Your task to perform on an android device: Open Google Chrome and click the shortcut for Amazon.com Image 0: 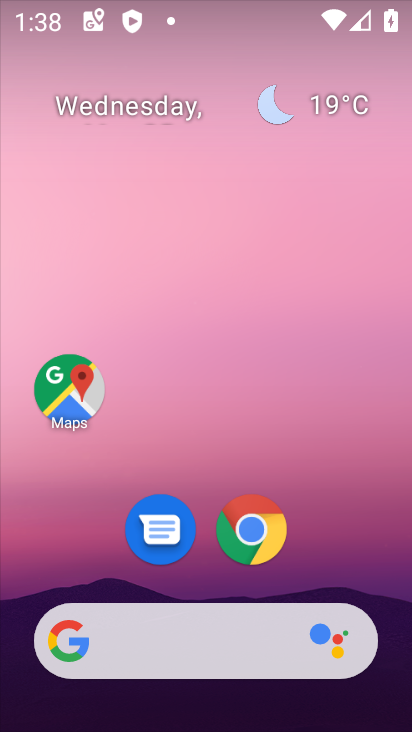
Step 0: click (260, 549)
Your task to perform on an android device: Open Google Chrome and click the shortcut for Amazon.com Image 1: 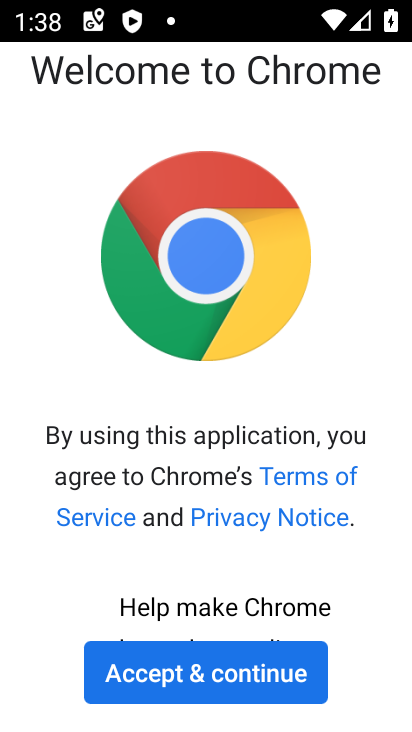
Step 1: click (224, 697)
Your task to perform on an android device: Open Google Chrome and click the shortcut for Amazon.com Image 2: 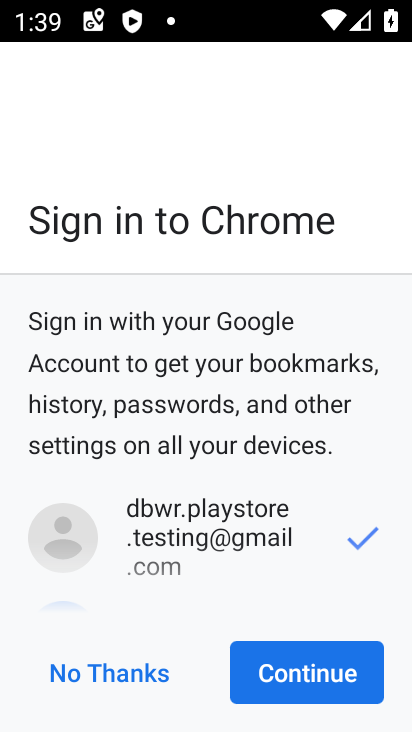
Step 2: click (303, 643)
Your task to perform on an android device: Open Google Chrome and click the shortcut for Amazon.com Image 3: 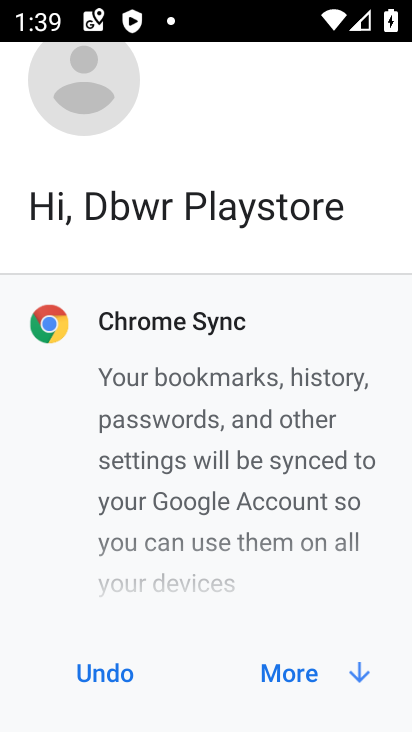
Step 3: click (295, 688)
Your task to perform on an android device: Open Google Chrome and click the shortcut for Amazon.com Image 4: 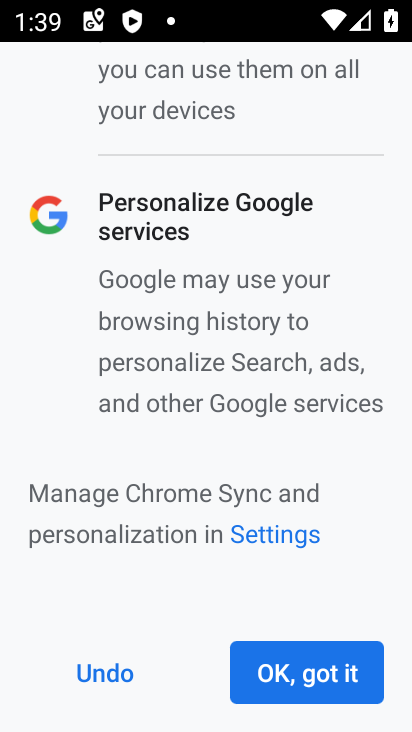
Step 4: click (328, 683)
Your task to perform on an android device: Open Google Chrome and click the shortcut for Amazon.com Image 5: 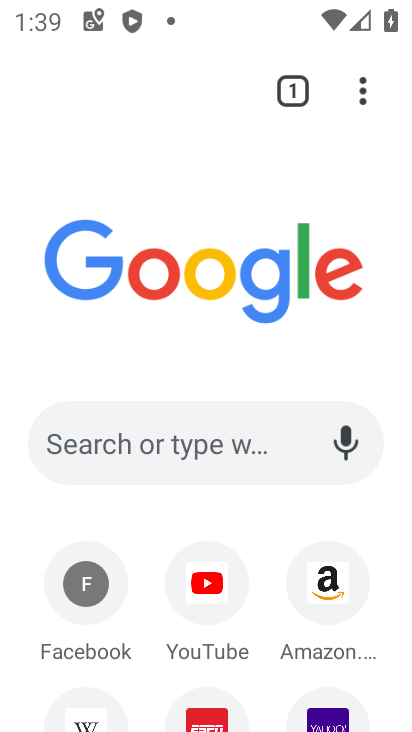
Step 5: click (344, 579)
Your task to perform on an android device: Open Google Chrome and click the shortcut for Amazon.com Image 6: 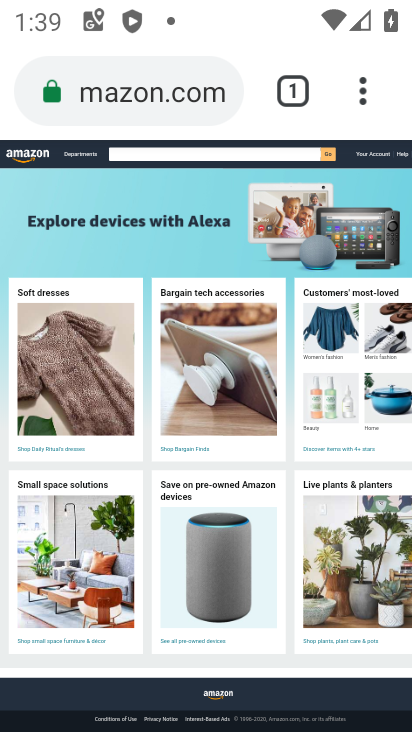
Step 6: task complete